Your task to perform on an android device: What's the weather today? Image 0: 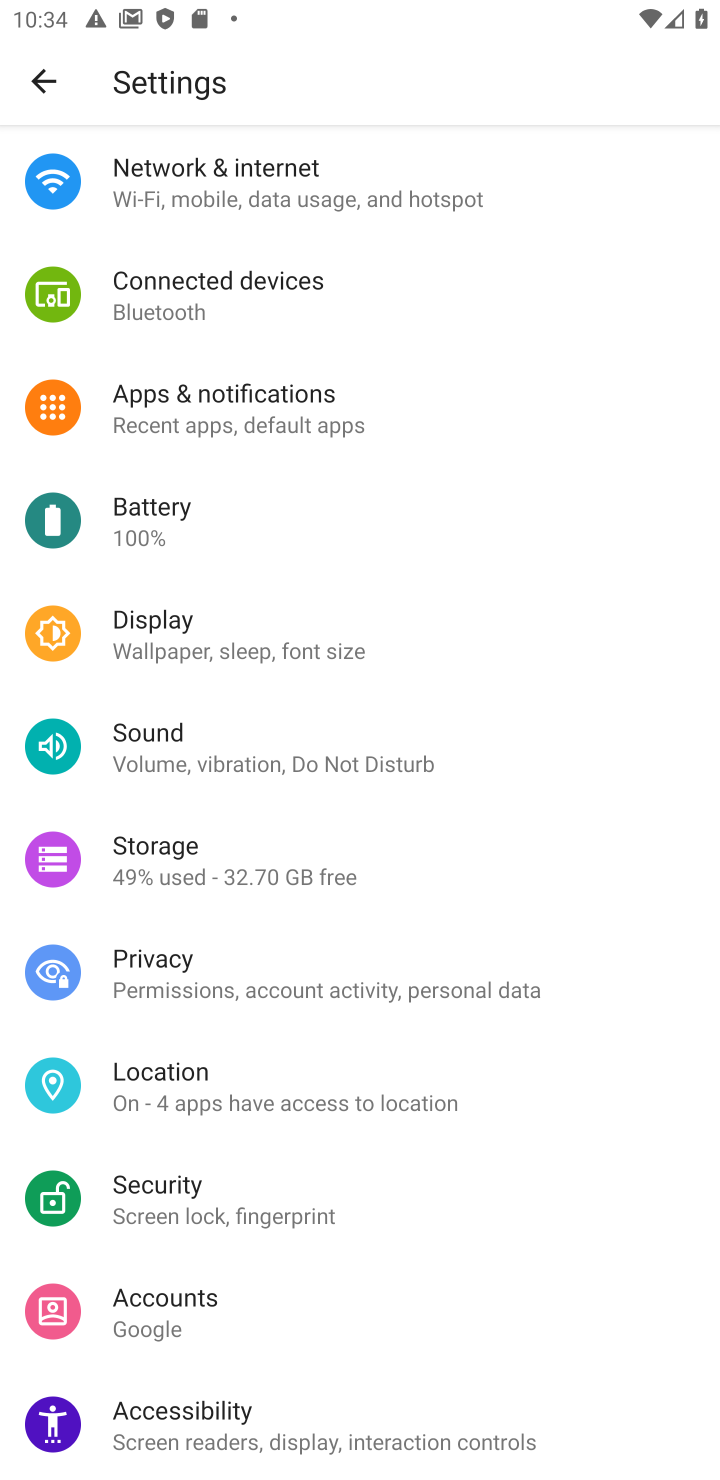
Step 0: press home button
Your task to perform on an android device: What's the weather today? Image 1: 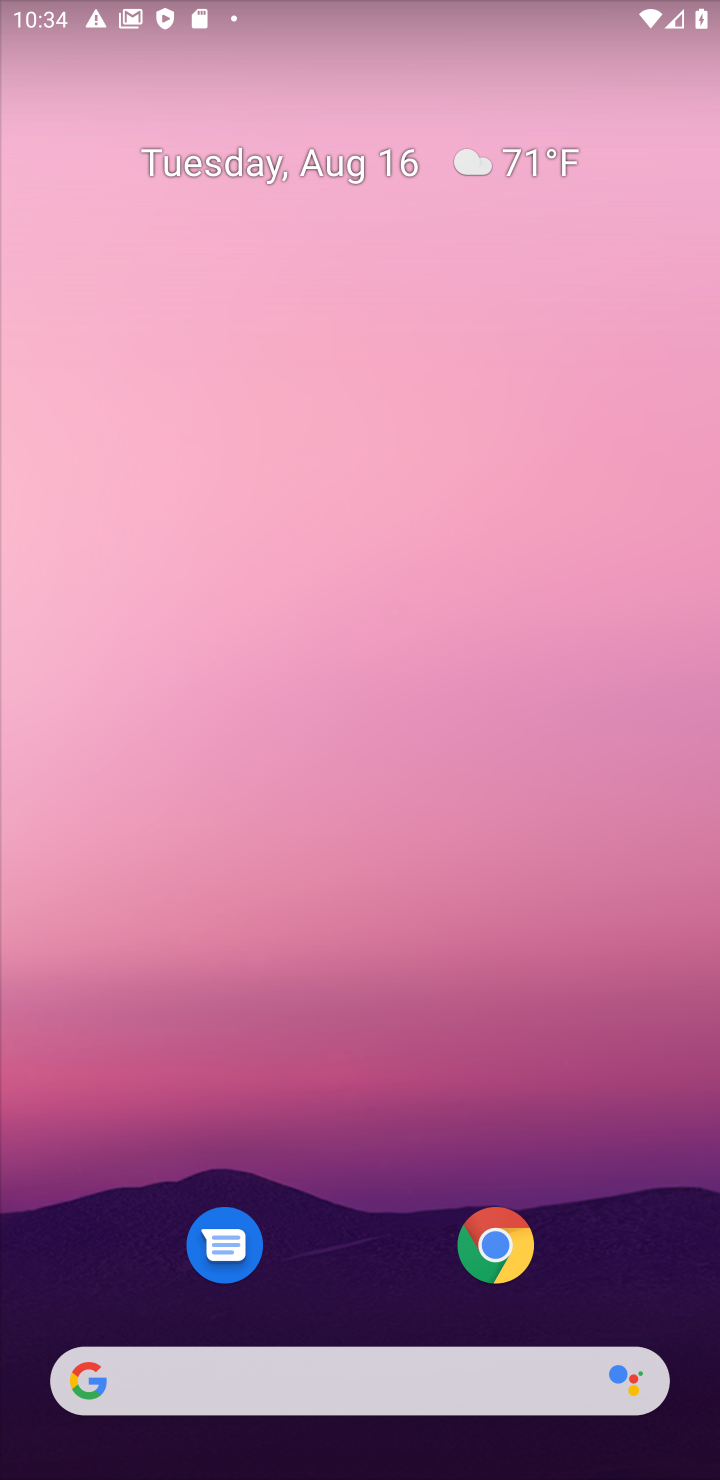
Step 1: click (366, 1398)
Your task to perform on an android device: What's the weather today? Image 2: 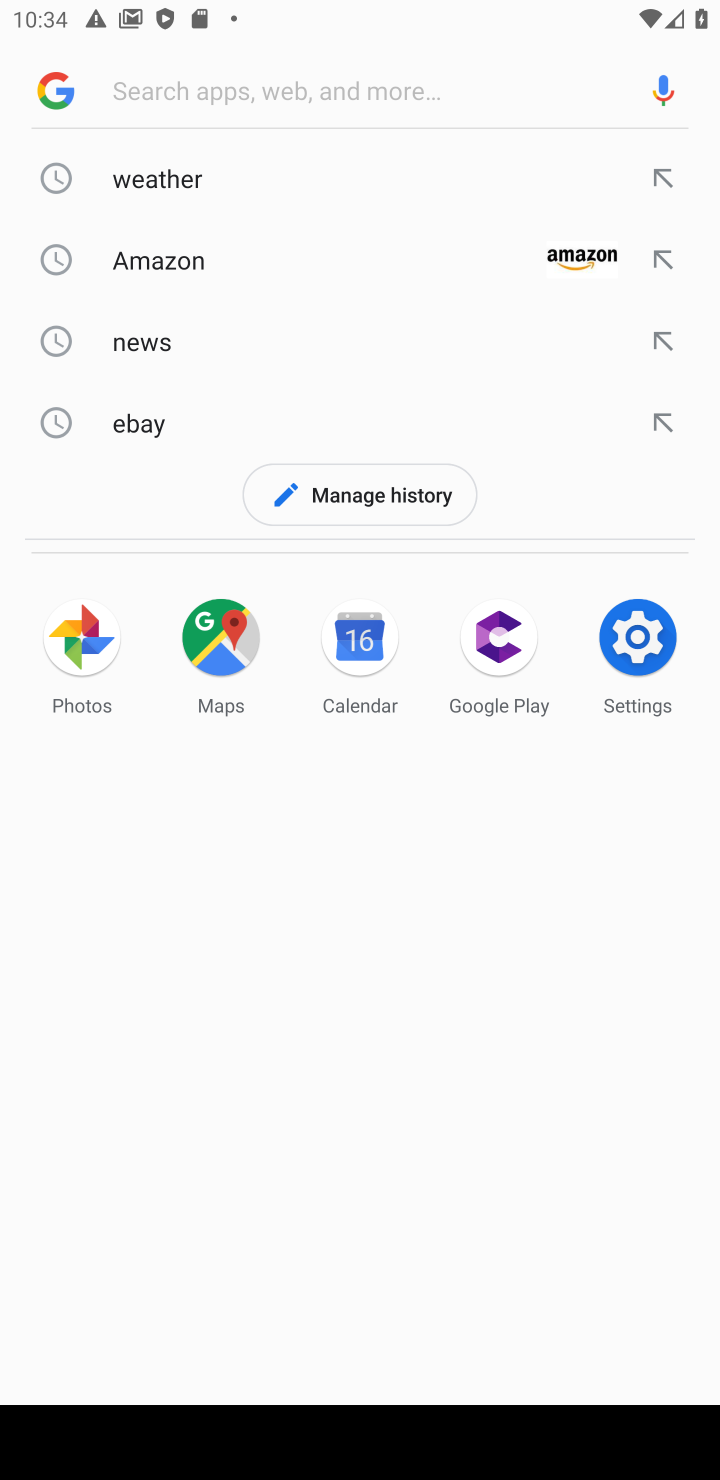
Step 2: click (159, 182)
Your task to perform on an android device: What's the weather today? Image 3: 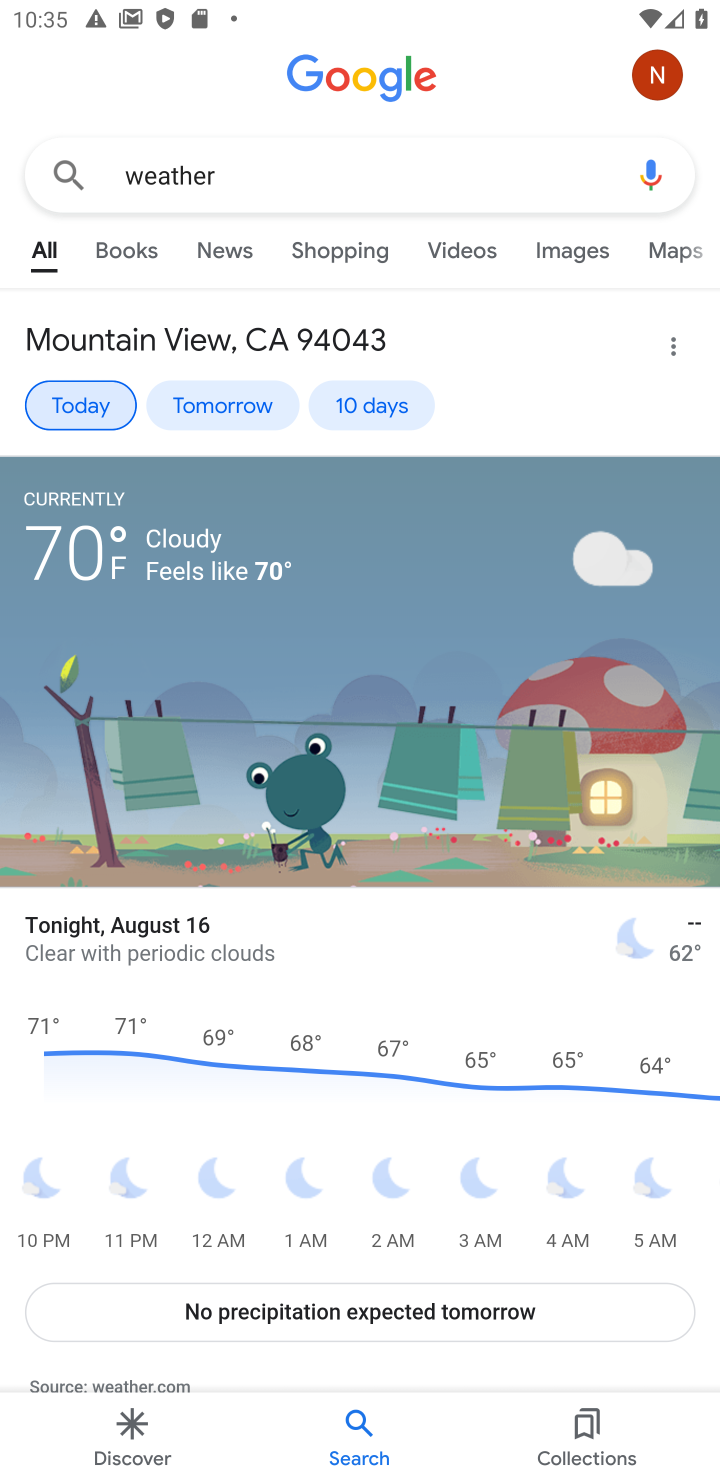
Step 3: task complete